Your task to perform on an android device: change notification settings in the gmail app Image 0: 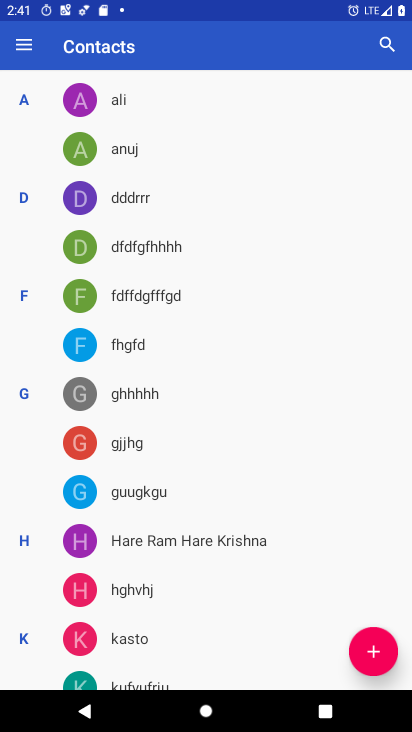
Step 0: press home button
Your task to perform on an android device: change notification settings in the gmail app Image 1: 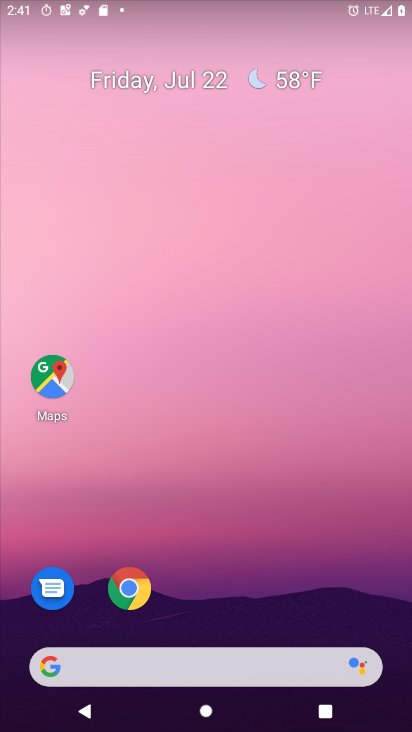
Step 1: drag from (217, 592) to (234, 22)
Your task to perform on an android device: change notification settings in the gmail app Image 2: 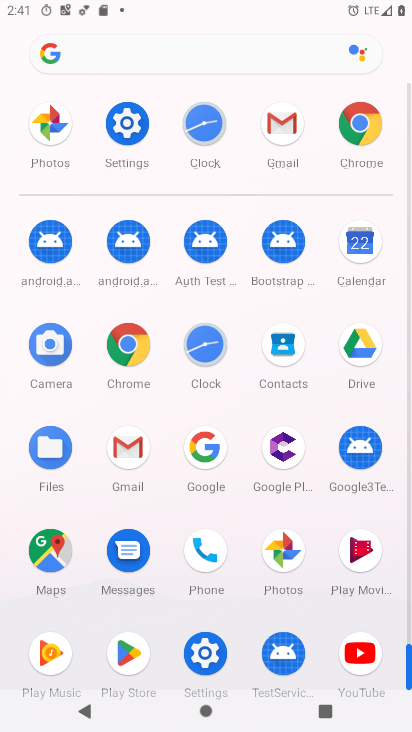
Step 2: click (124, 455)
Your task to perform on an android device: change notification settings in the gmail app Image 3: 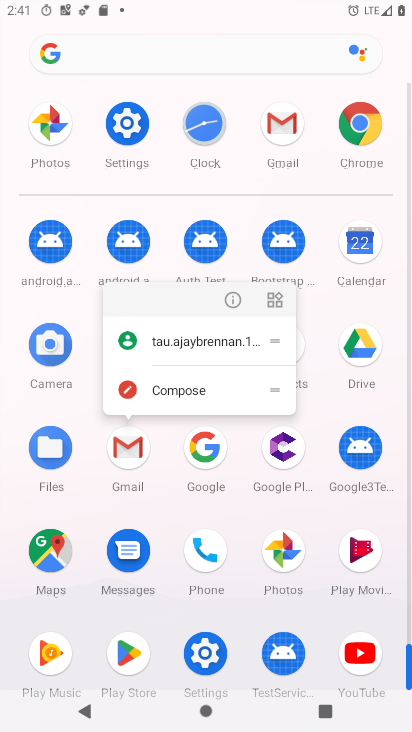
Step 3: click (226, 292)
Your task to perform on an android device: change notification settings in the gmail app Image 4: 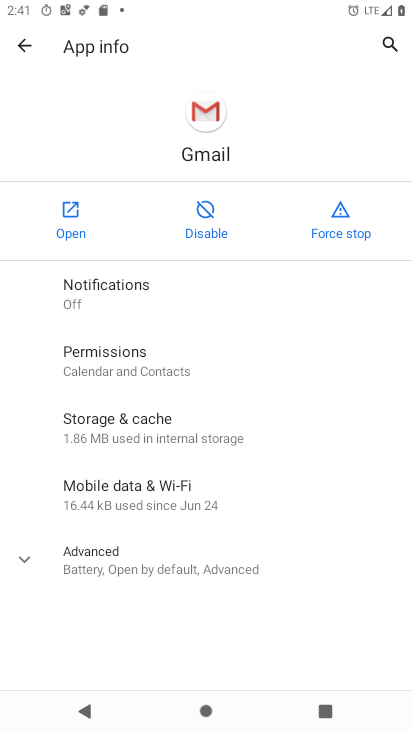
Step 4: click (119, 284)
Your task to perform on an android device: change notification settings in the gmail app Image 5: 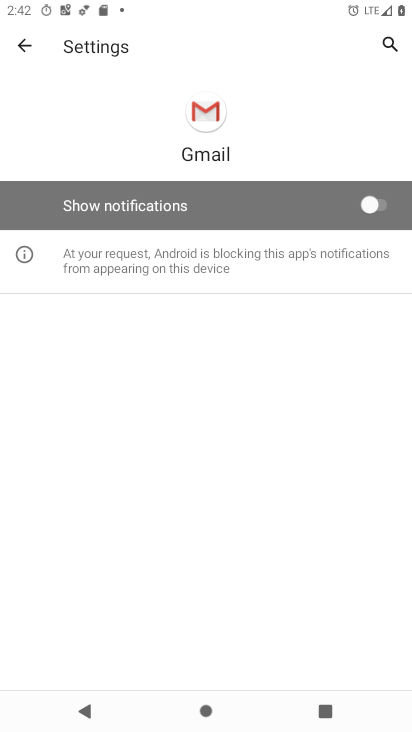
Step 5: click (245, 223)
Your task to perform on an android device: change notification settings in the gmail app Image 6: 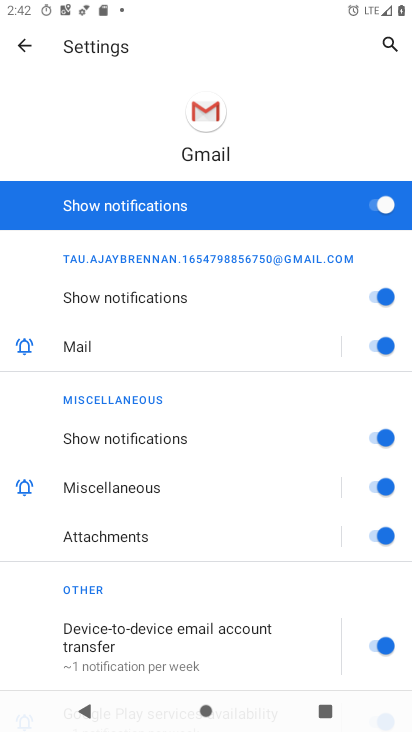
Step 6: task complete